Your task to perform on an android device: set the stopwatch Image 0: 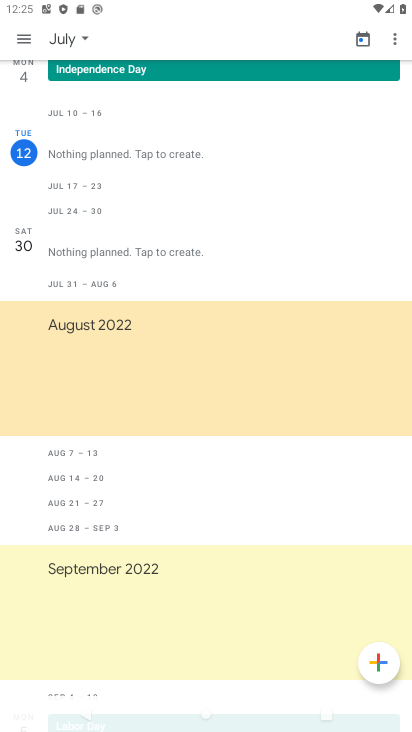
Step 0: press back button
Your task to perform on an android device: set the stopwatch Image 1: 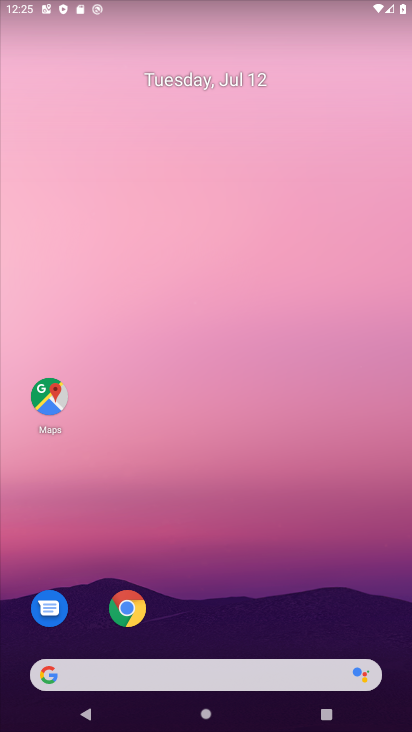
Step 1: drag from (250, 676) to (107, 181)
Your task to perform on an android device: set the stopwatch Image 2: 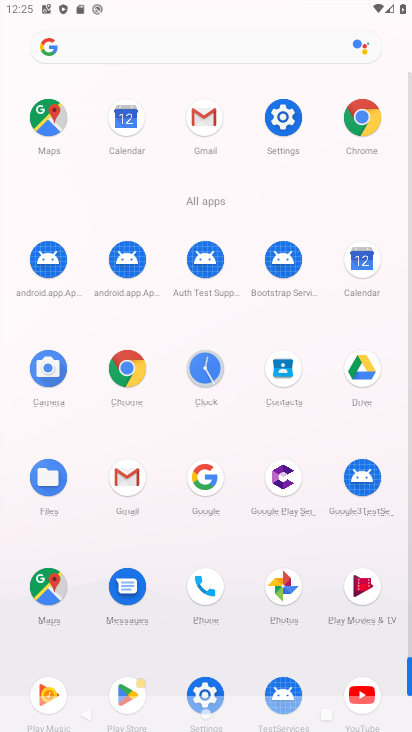
Step 2: click (202, 373)
Your task to perform on an android device: set the stopwatch Image 3: 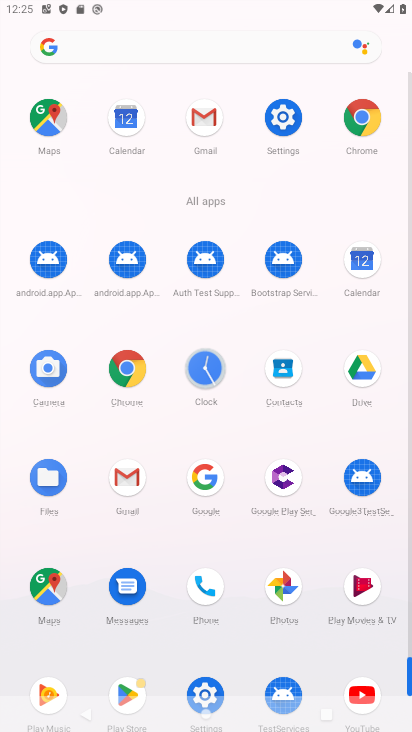
Step 3: click (203, 373)
Your task to perform on an android device: set the stopwatch Image 4: 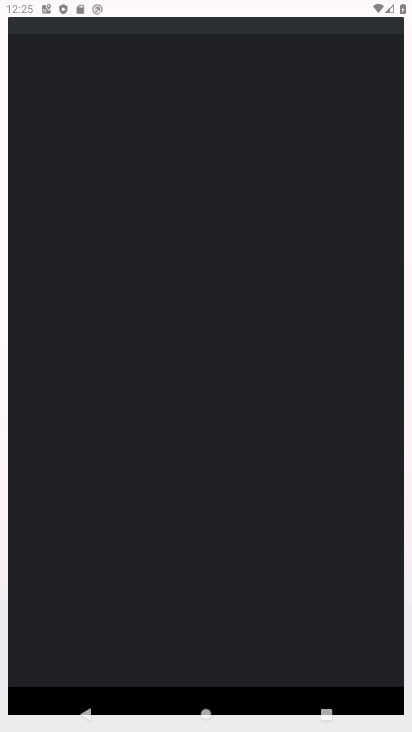
Step 4: click (207, 372)
Your task to perform on an android device: set the stopwatch Image 5: 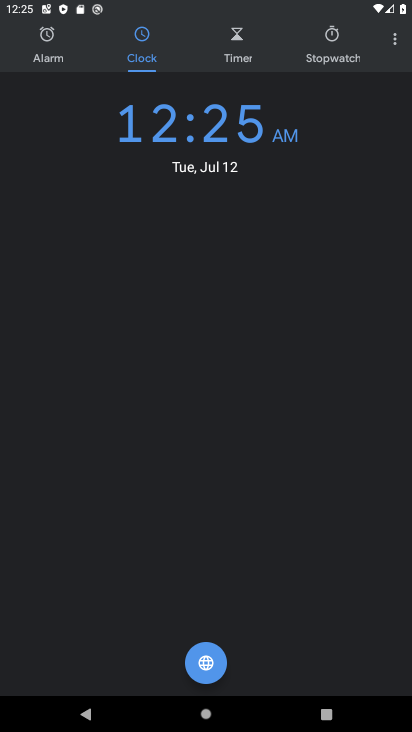
Step 5: click (326, 42)
Your task to perform on an android device: set the stopwatch Image 6: 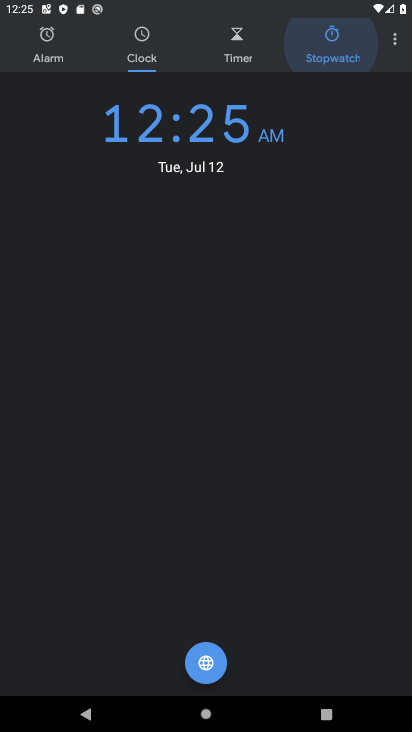
Step 6: click (326, 42)
Your task to perform on an android device: set the stopwatch Image 7: 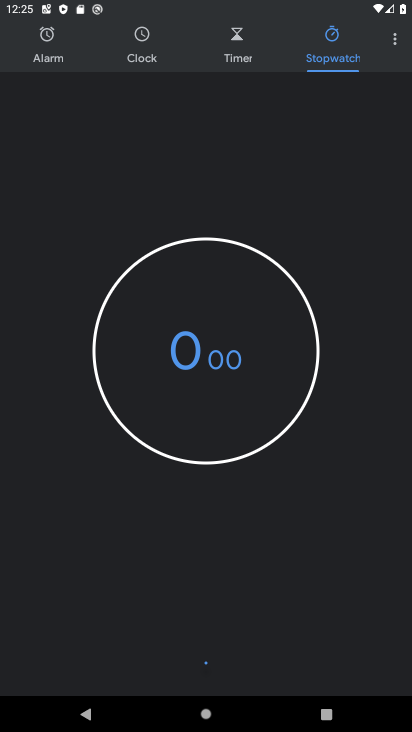
Step 7: click (326, 46)
Your task to perform on an android device: set the stopwatch Image 8: 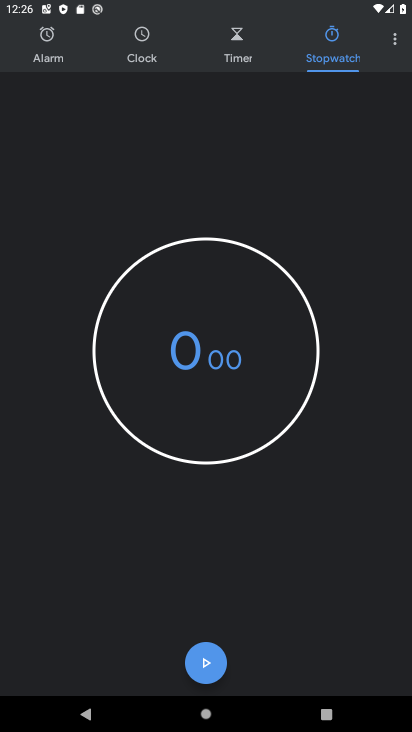
Step 8: click (200, 665)
Your task to perform on an android device: set the stopwatch Image 9: 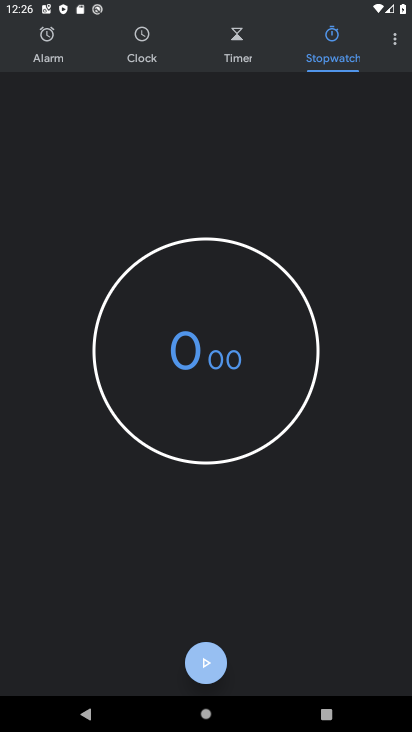
Step 9: click (201, 668)
Your task to perform on an android device: set the stopwatch Image 10: 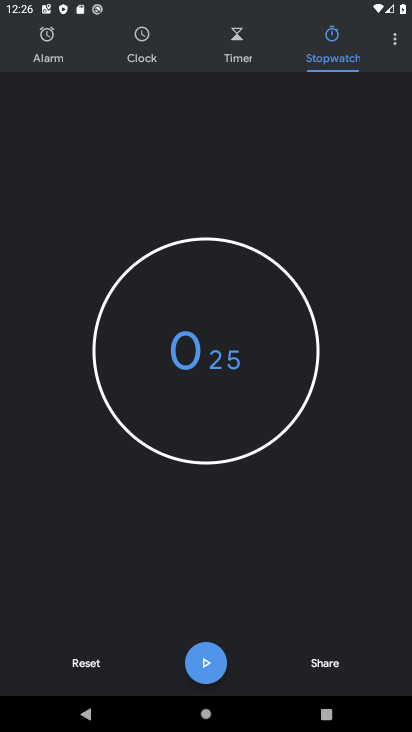
Step 10: click (199, 657)
Your task to perform on an android device: set the stopwatch Image 11: 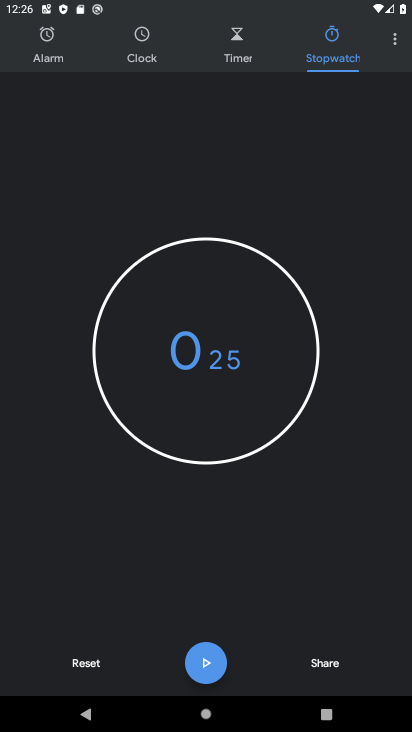
Step 11: click (201, 658)
Your task to perform on an android device: set the stopwatch Image 12: 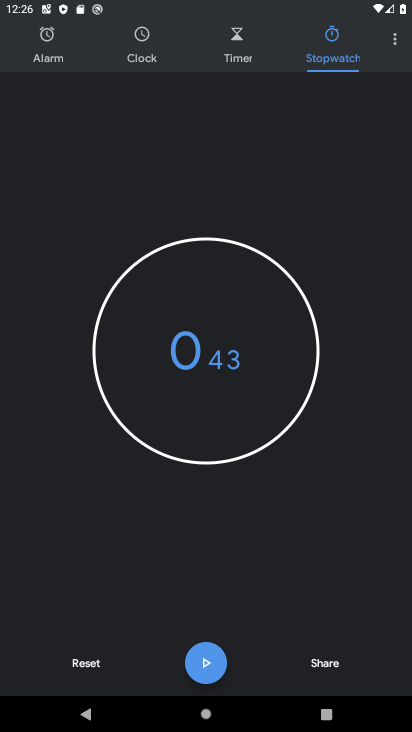
Step 12: task complete